Your task to perform on an android device: Open privacy settings Image 0: 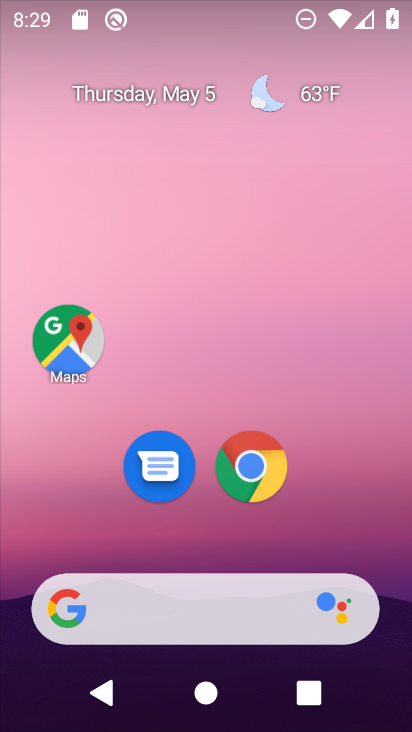
Step 0: click (237, 487)
Your task to perform on an android device: Open privacy settings Image 1: 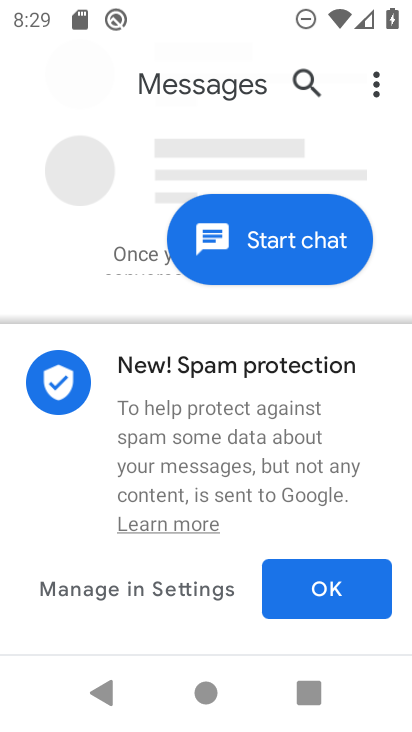
Step 1: press home button
Your task to perform on an android device: Open privacy settings Image 2: 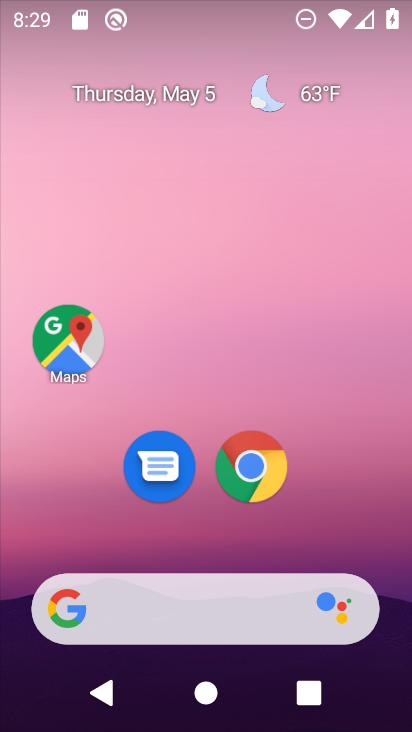
Step 2: drag from (160, 581) to (204, 141)
Your task to perform on an android device: Open privacy settings Image 3: 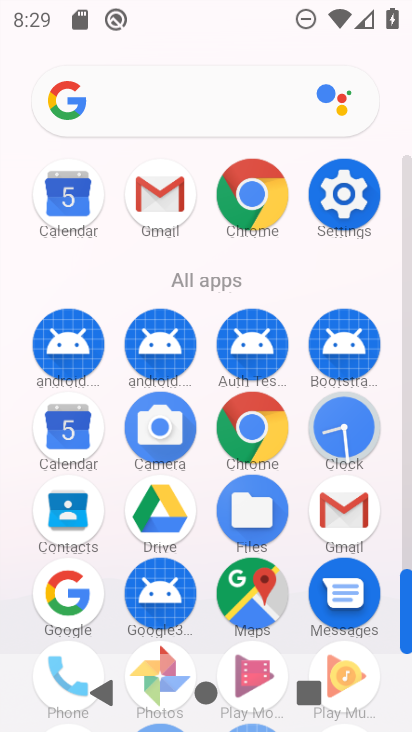
Step 3: click (368, 197)
Your task to perform on an android device: Open privacy settings Image 4: 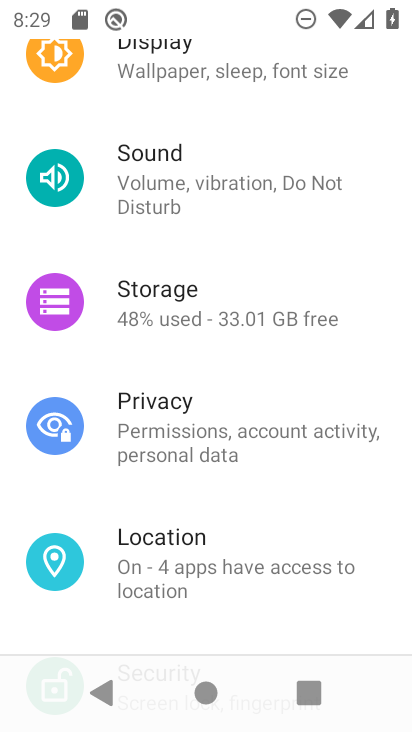
Step 4: click (223, 443)
Your task to perform on an android device: Open privacy settings Image 5: 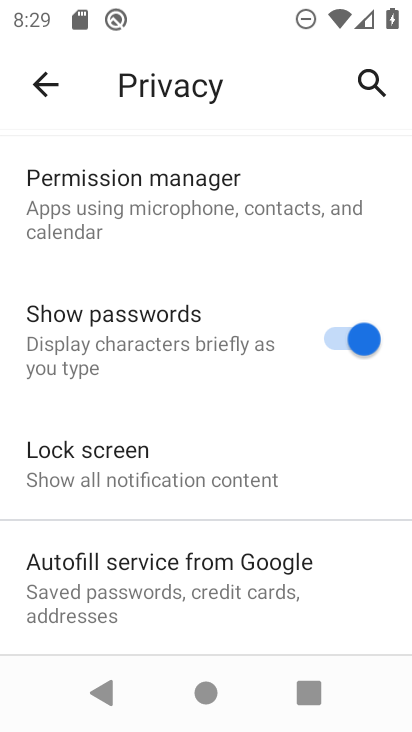
Step 5: task complete